Your task to perform on an android device: toggle priority inbox in the gmail app Image 0: 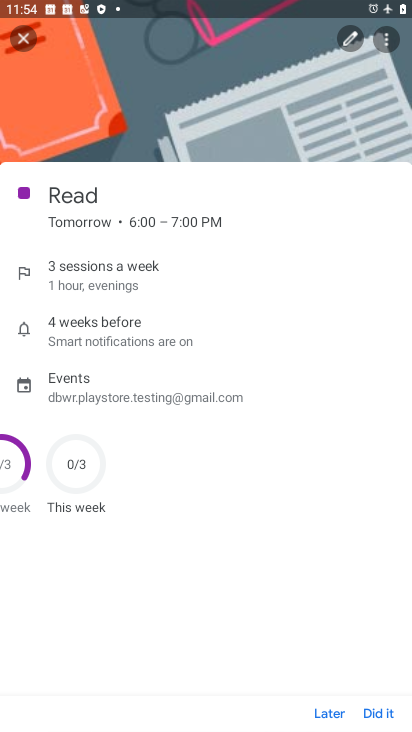
Step 0: press home button
Your task to perform on an android device: toggle priority inbox in the gmail app Image 1: 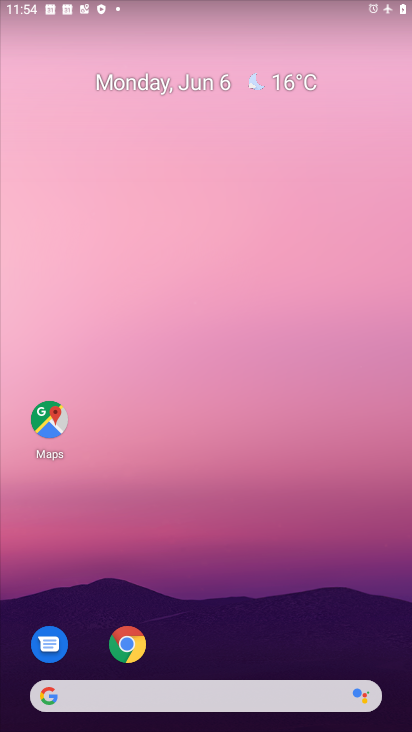
Step 1: drag from (311, 462) to (312, 140)
Your task to perform on an android device: toggle priority inbox in the gmail app Image 2: 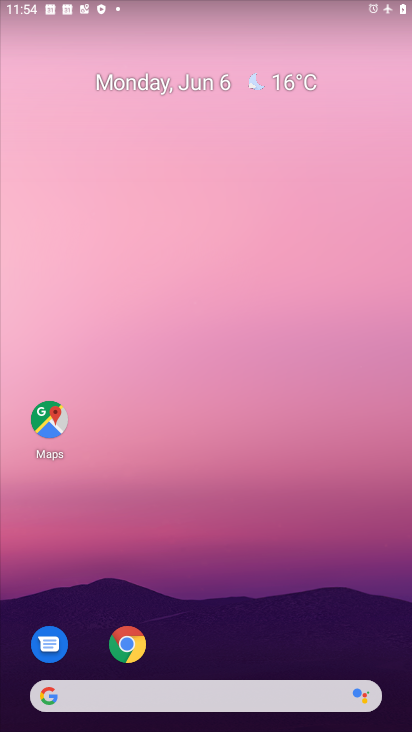
Step 2: drag from (210, 670) to (333, 68)
Your task to perform on an android device: toggle priority inbox in the gmail app Image 3: 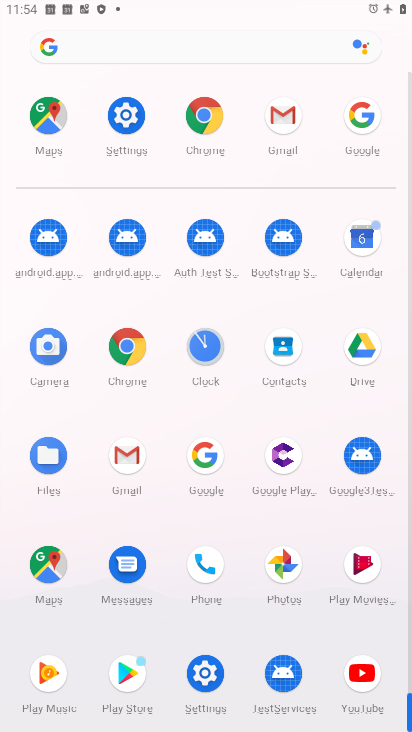
Step 3: click (119, 454)
Your task to perform on an android device: toggle priority inbox in the gmail app Image 4: 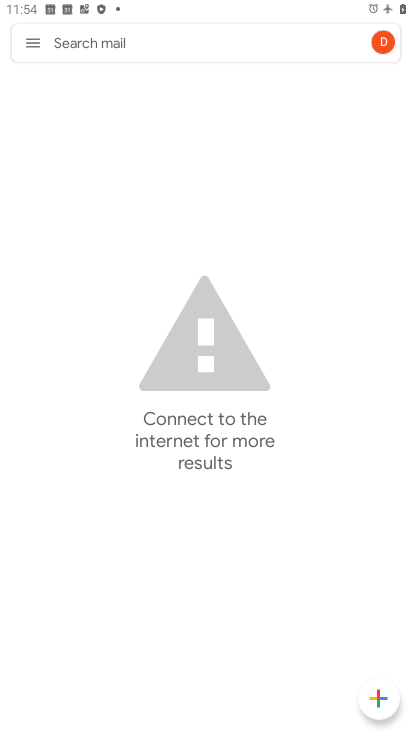
Step 4: click (39, 47)
Your task to perform on an android device: toggle priority inbox in the gmail app Image 5: 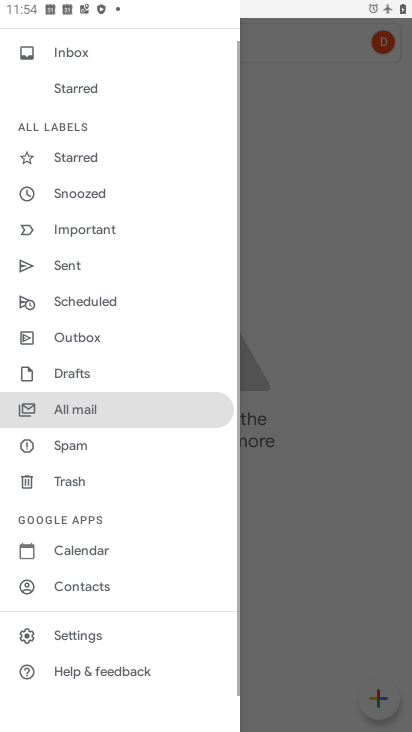
Step 5: drag from (134, 561) to (149, 241)
Your task to perform on an android device: toggle priority inbox in the gmail app Image 6: 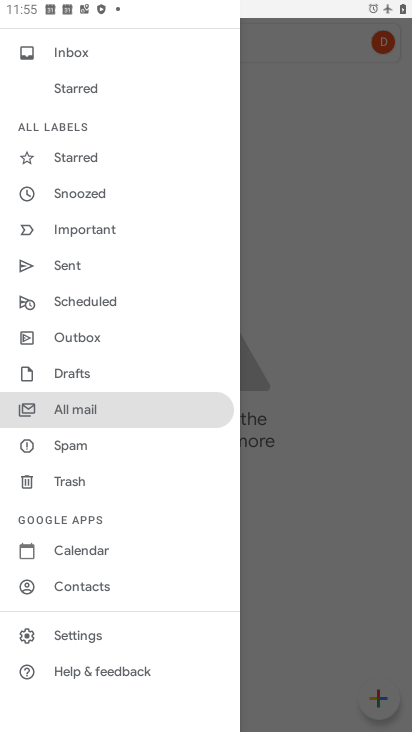
Step 6: click (100, 642)
Your task to perform on an android device: toggle priority inbox in the gmail app Image 7: 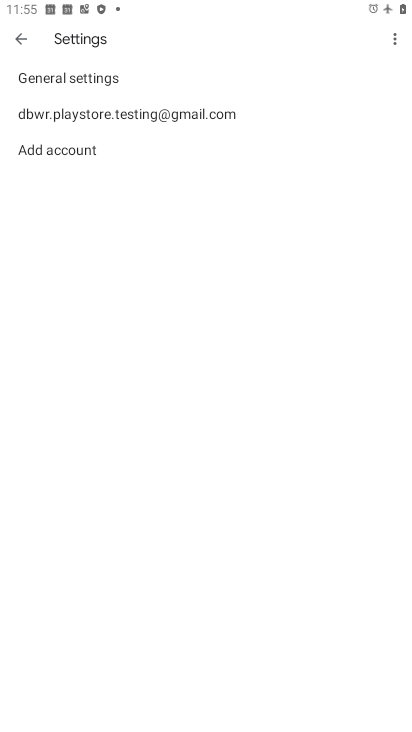
Step 7: click (203, 128)
Your task to perform on an android device: toggle priority inbox in the gmail app Image 8: 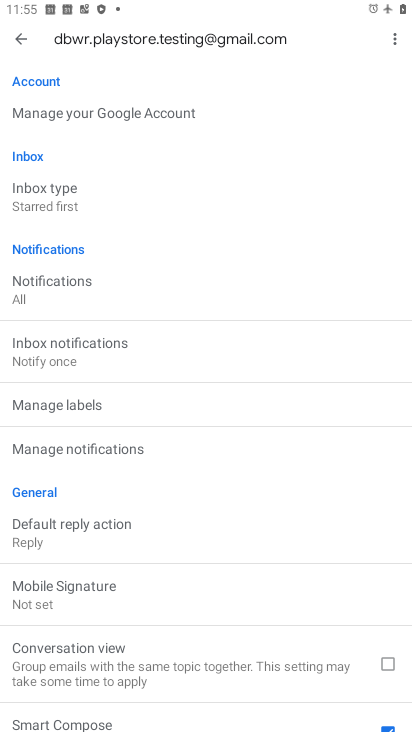
Step 8: drag from (140, 578) to (161, 626)
Your task to perform on an android device: toggle priority inbox in the gmail app Image 9: 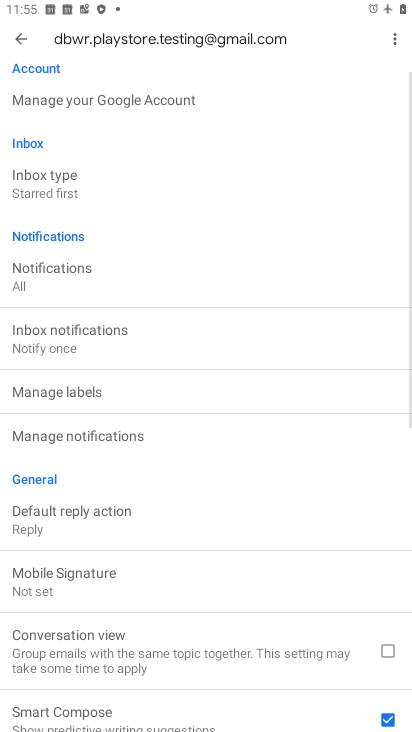
Step 9: click (111, 198)
Your task to perform on an android device: toggle priority inbox in the gmail app Image 10: 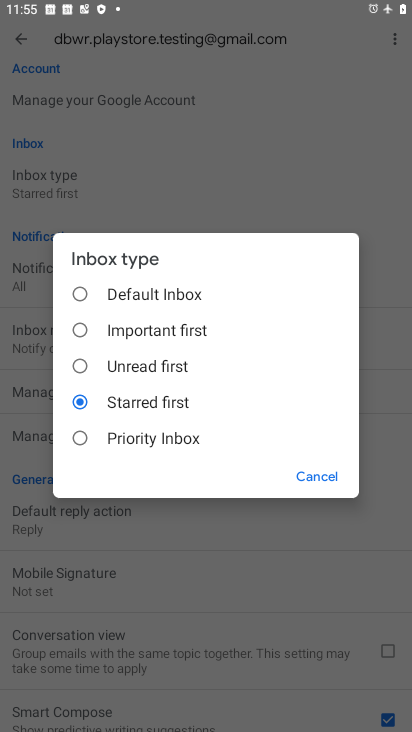
Step 10: click (179, 448)
Your task to perform on an android device: toggle priority inbox in the gmail app Image 11: 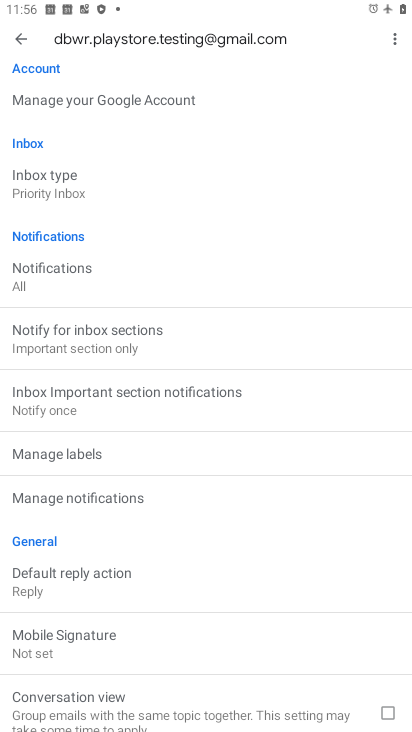
Step 11: click (106, 372)
Your task to perform on an android device: toggle priority inbox in the gmail app Image 12: 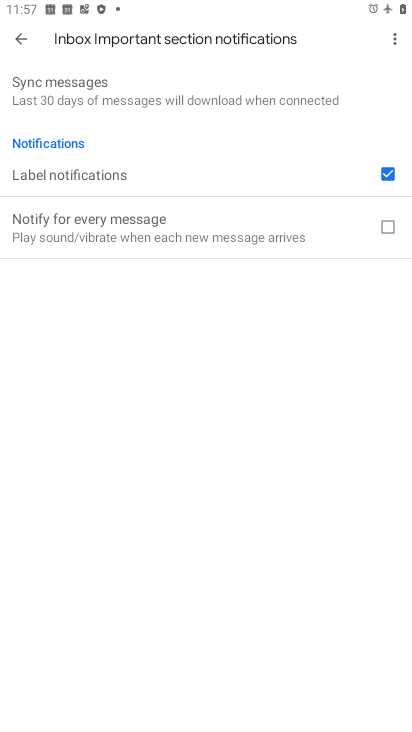
Step 12: task complete